Your task to perform on an android device: Open the map Image 0: 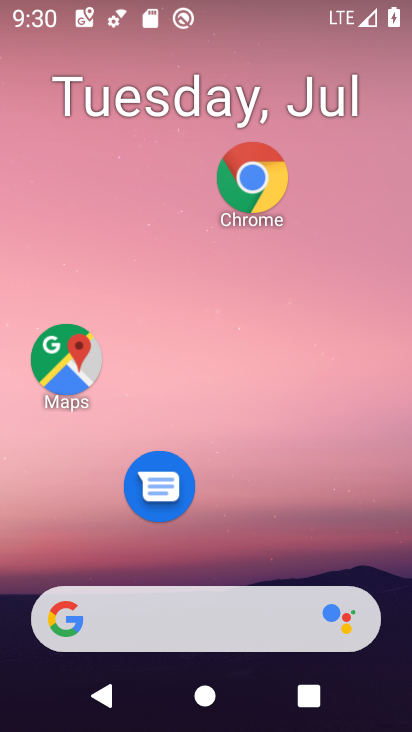
Step 0: drag from (256, 611) to (292, 285)
Your task to perform on an android device: Open the map Image 1: 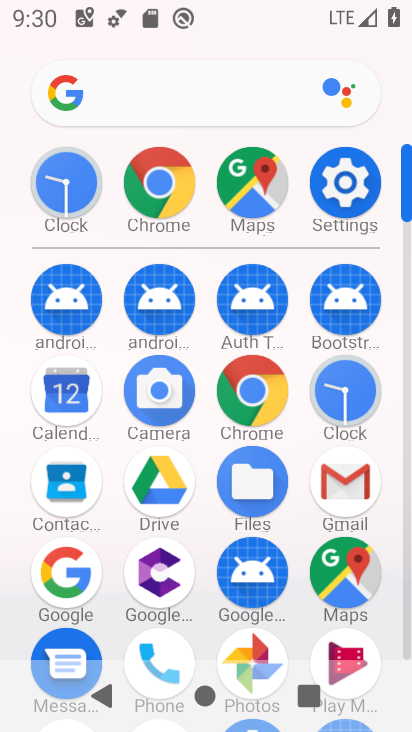
Step 1: click (343, 564)
Your task to perform on an android device: Open the map Image 2: 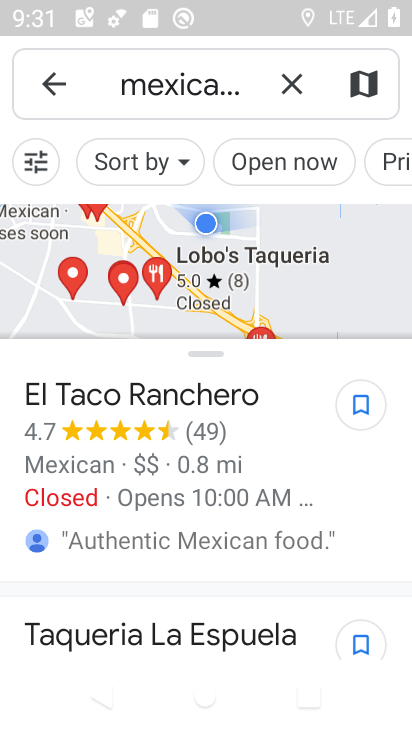
Step 2: task complete